Your task to perform on an android device: show emergency info Image 0: 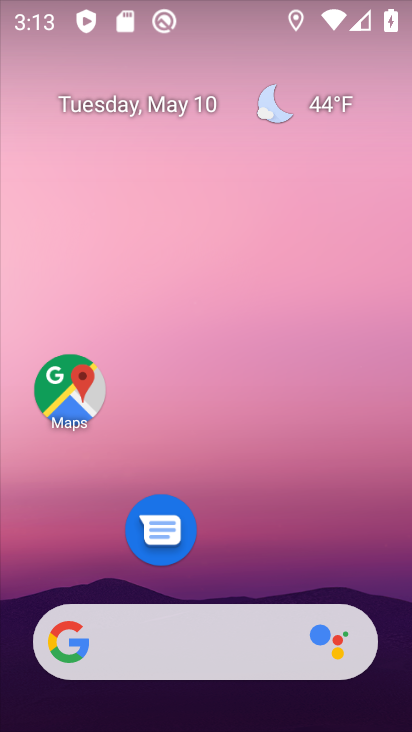
Step 0: drag from (233, 551) to (246, 65)
Your task to perform on an android device: show emergency info Image 1: 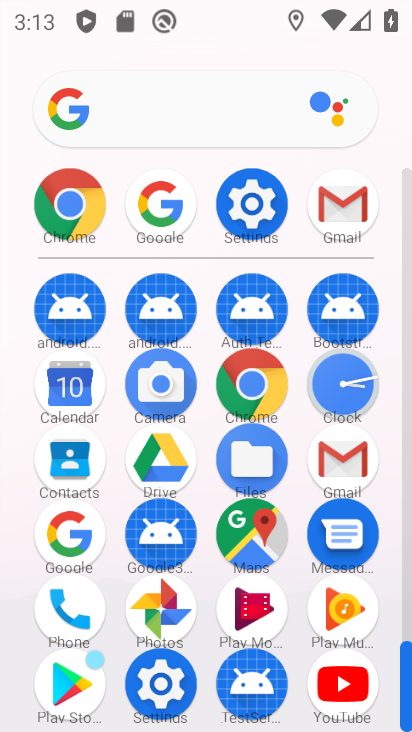
Step 1: click (251, 201)
Your task to perform on an android device: show emergency info Image 2: 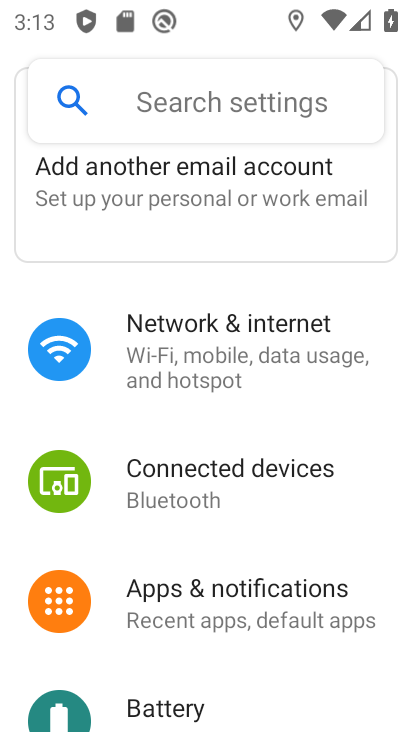
Step 2: drag from (246, 593) to (266, 8)
Your task to perform on an android device: show emergency info Image 3: 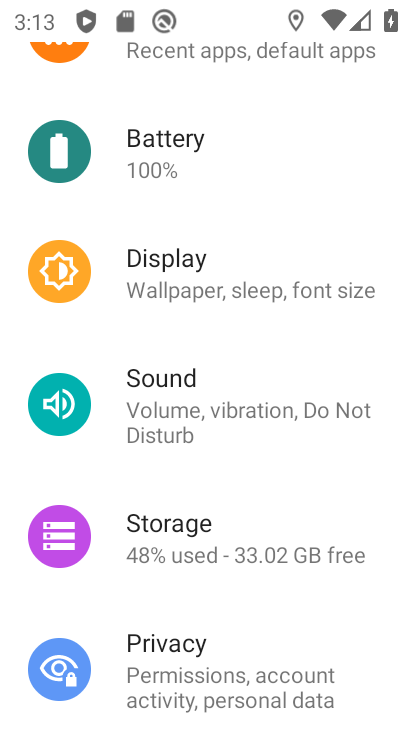
Step 3: drag from (243, 582) to (193, 7)
Your task to perform on an android device: show emergency info Image 4: 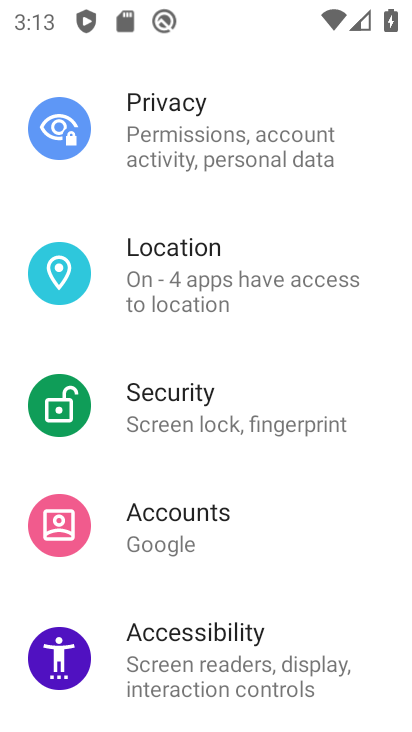
Step 4: drag from (211, 602) to (220, 50)
Your task to perform on an android device: show emergency info Image 5: 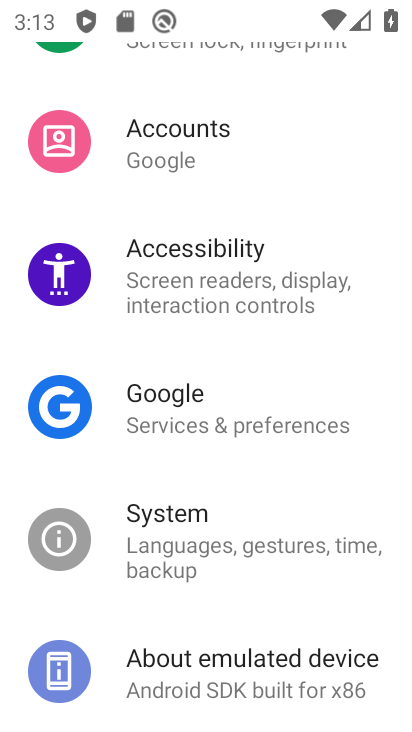
Step 5: click (192, 676)
Your task to perform on an android device: show emergency info Image 6: 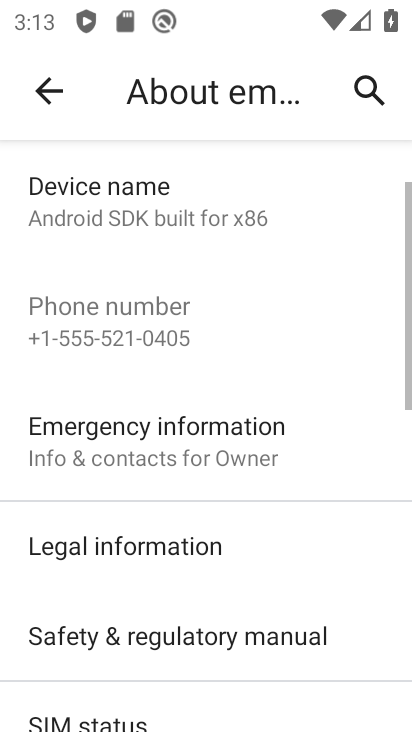
Step 6: click (182, 448)
Your task to perform on an android device: show emergency info Image 7: 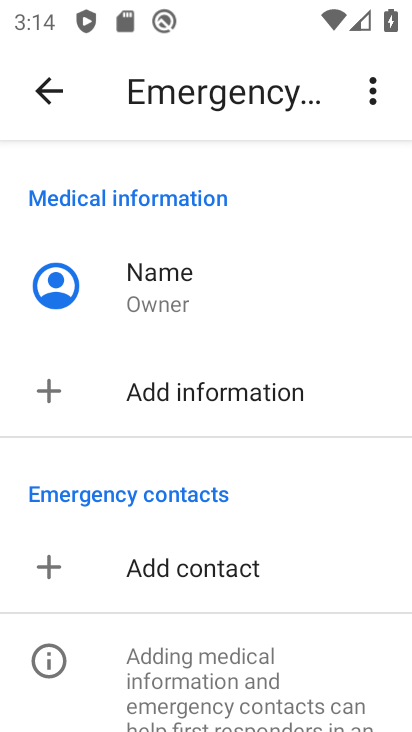
Step 7: task complete